Your task to perform on an android device: toggle airplane mode Image 0: 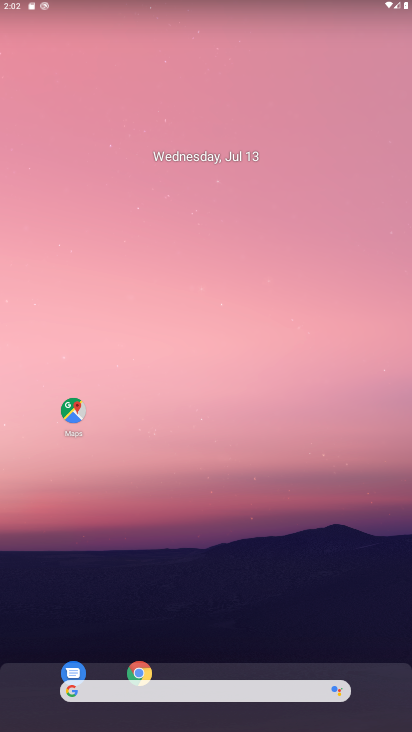
Step 0: drag from (206, 703) to (226, 131)
Your task to perform on an android device: toggle airplane mode Image 1: 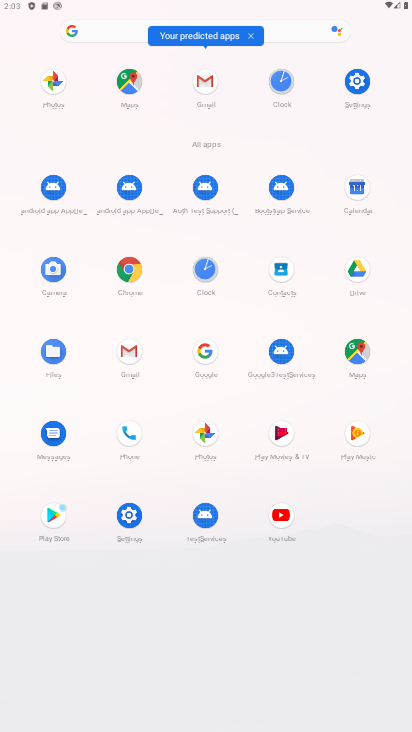
Step 1: click (360, 82)
Your task to perform on an android device: toggle airplane mode Image 2: 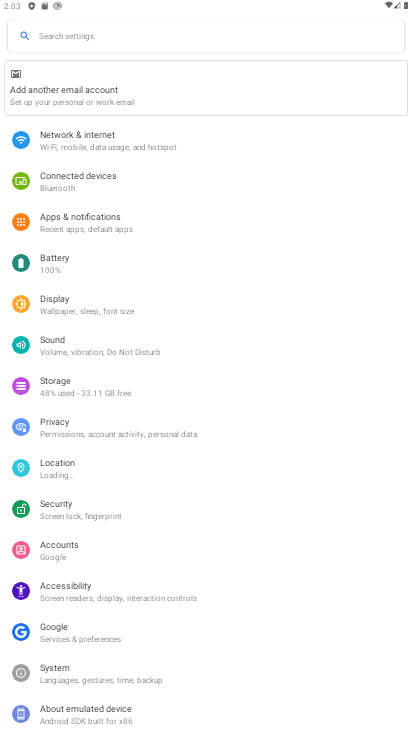
Step 2: click (110, 149)
Your task to perform on an android device: toggle airplane mode Image 3: 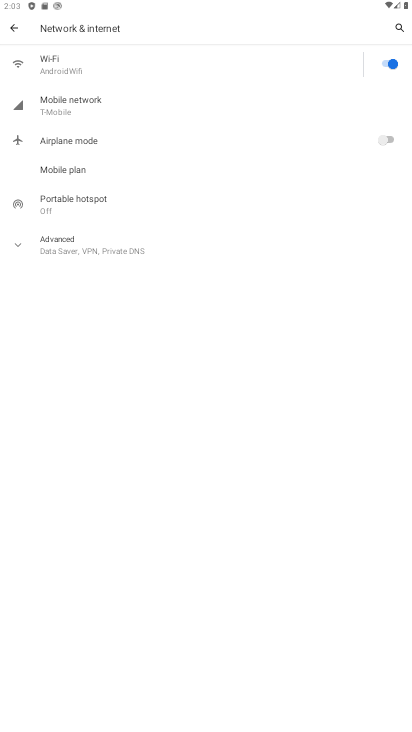
Step 3: click (381, 138)
Your task to perform on an android device: toggle airplane mode Image 4: 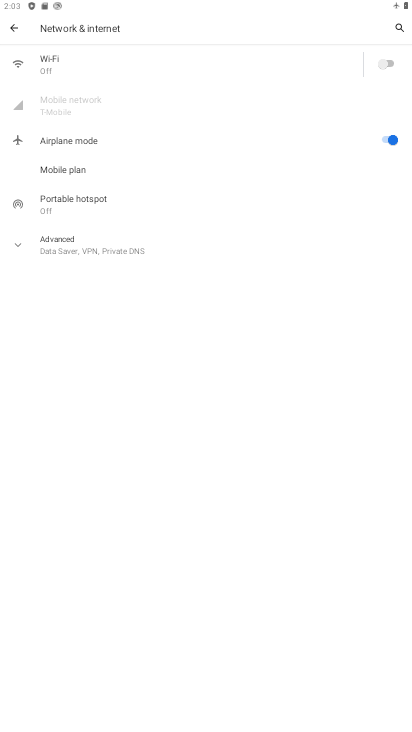
Step 4: task complete